Your task to perform on an android device: When is my next appointment? Image 0: 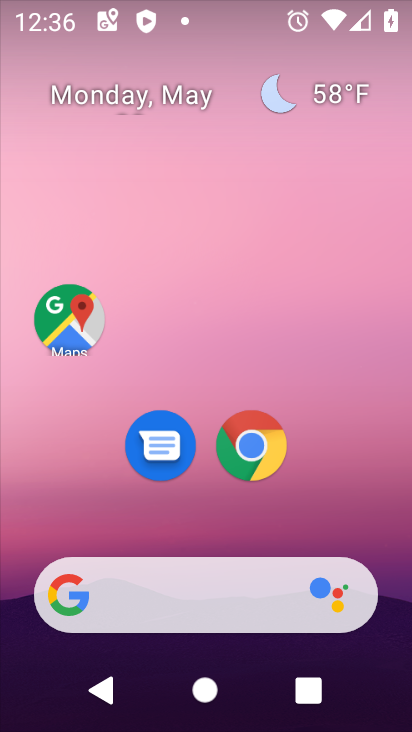
Step 0: press home button
Your task to perform on an android device: When is my next appointment? Image 1: 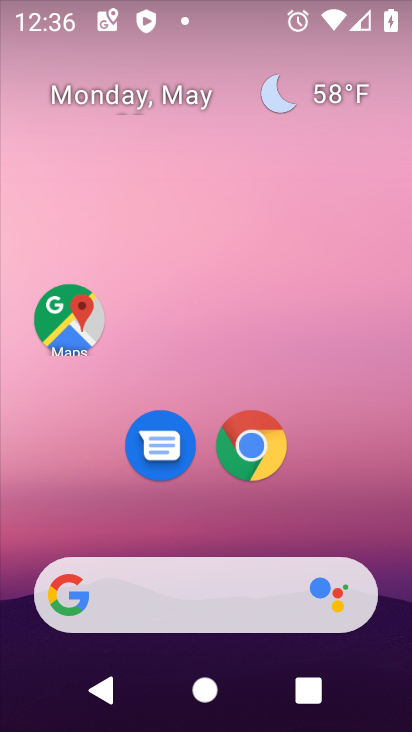
Step 1: drag from (203, 525) to (204, 62)
Your task to perform on an android device: When is my next appointment? Image 2: 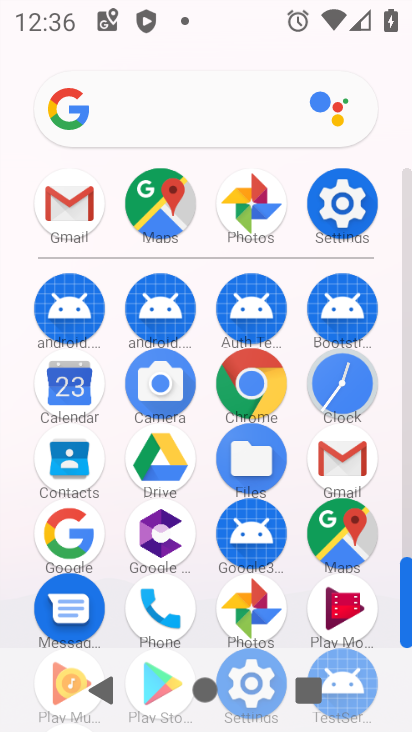
Step 2: click (340, 195)
Your task to perform on an android device: When is my next appointment? Image 3: 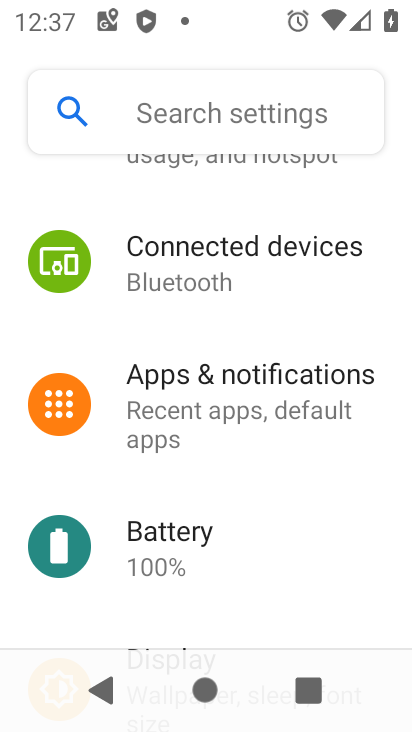
Step 3: press home button
Your task to perform on an android device: When is my next appointment? Image 4: 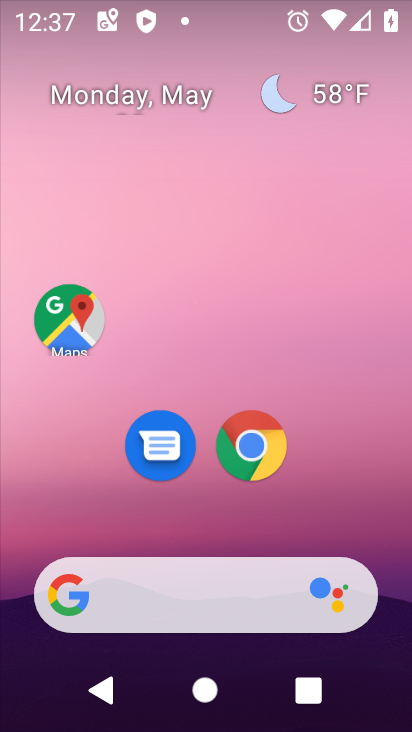
Step 4: drag from (213, 525) to (220, 40)
Your task to perform on an android device: When is my next appointment? Image 5: 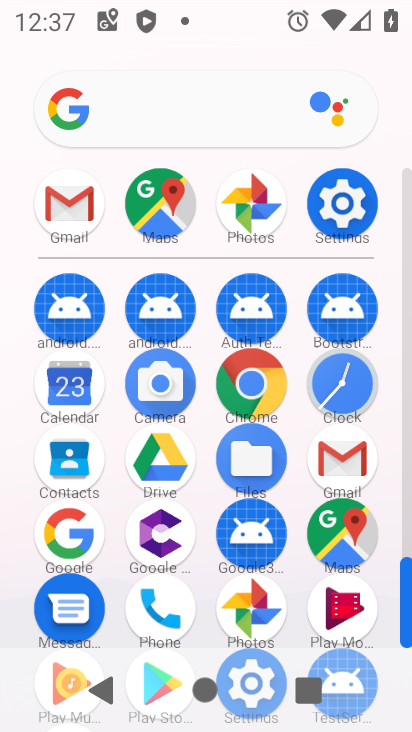
Step 5: click (66, 380)
Your task to perform on an android device: When is my next appointment? Image 6: 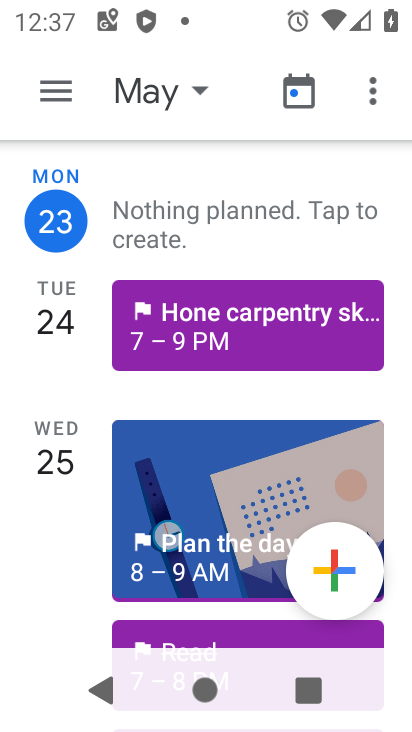
Step 6: task complete